Your task to perform on an android device: Open Google Chrome and click the shortcut for Amazon.com Image 0: 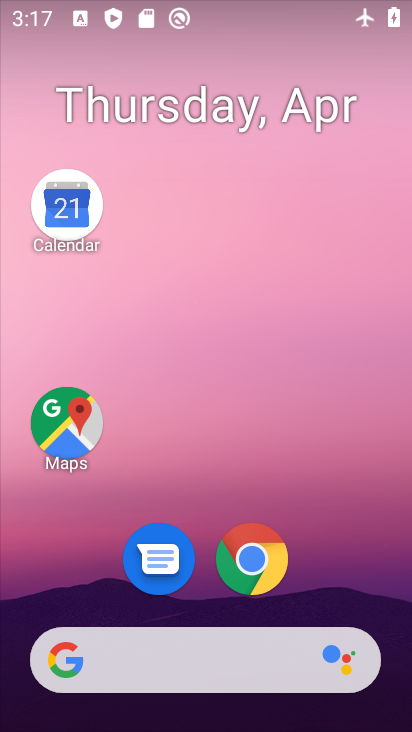
Step 0: click (264, 538)
Your task to perform on an android device: Open Google Chrome and click the shortcut for Amazon.com Image 1: 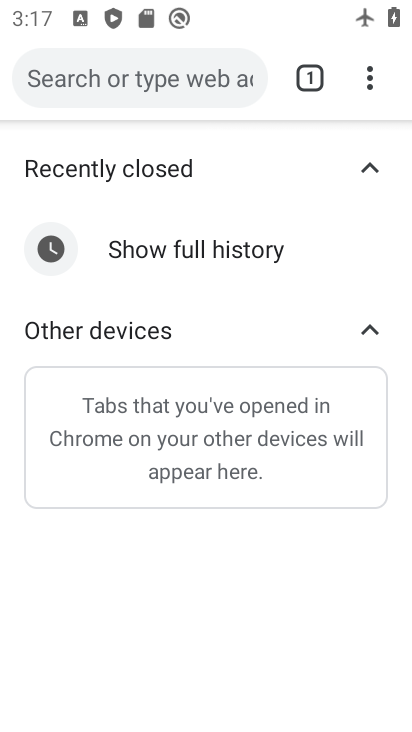
Step 1: click (319, 71)
Your task to perform on an android device: Open Google Chrome and click the shortcut for Amazon.com Image 2: 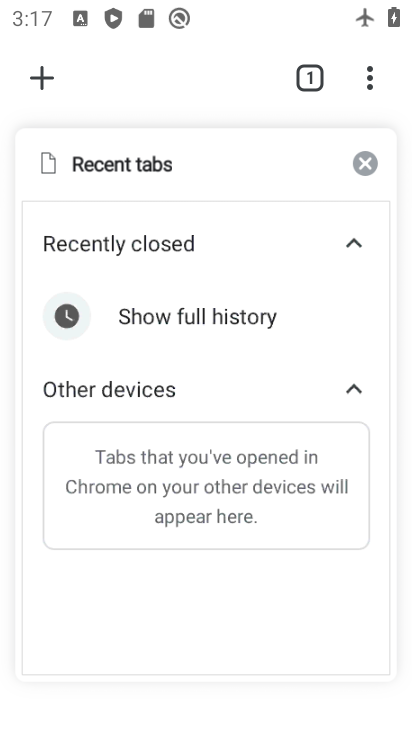
Step 2: click (47, 81)
Your task to perform on an android device: Open Google Chrome and click the shortcut for Amazon.com Image 3: 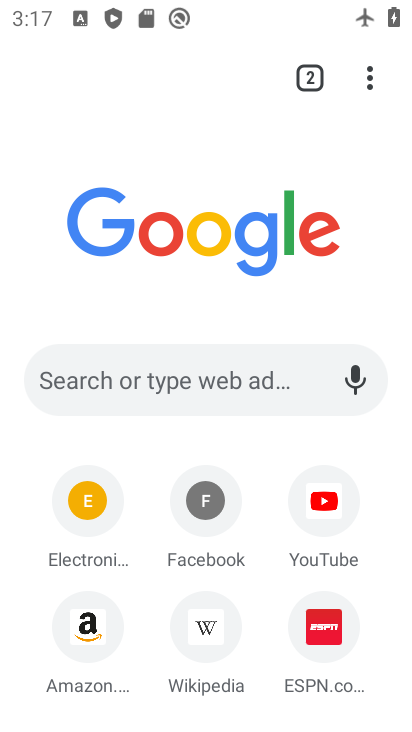
Step 3: click (82, 624)
Your task to perform on an android device: Open Google Chrome and click the shortcut for Amazon.com Image 4: 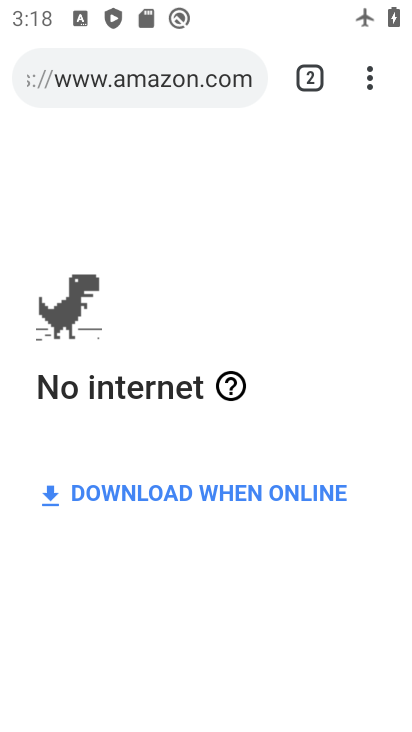
Step 4: task complete